Your task to perform on an android device: move a message to another label in the gmail app Image 0: 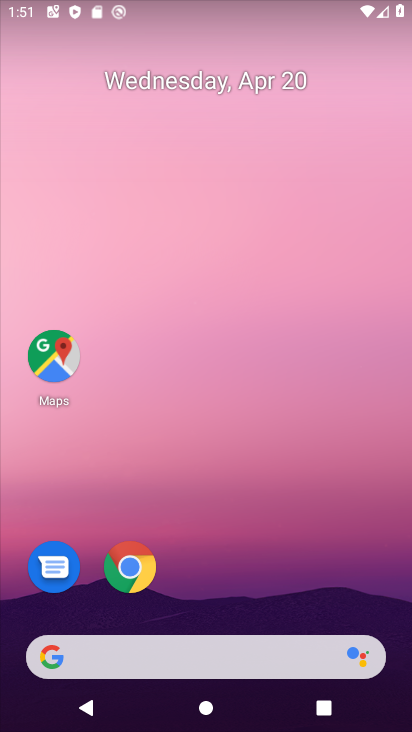
Step 0: drag from (192, 652) to (331, 70)
Your task to perform on an android device: move a message to another label in the gmail app Image 1: 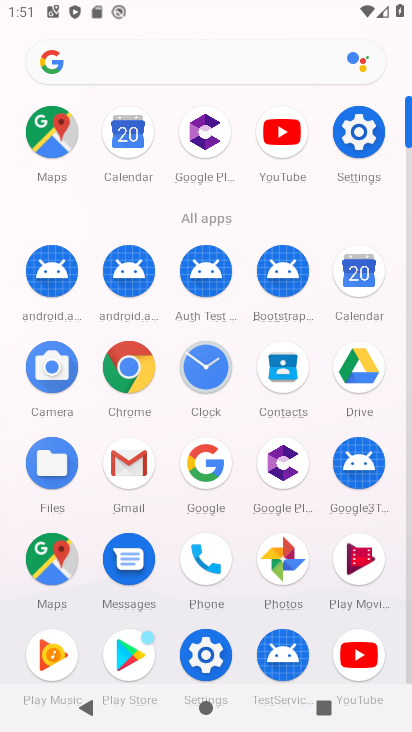
Step 1: click (120, 454)
Your task to perform on an android device: move a message to another label in the gmail app Image 2: 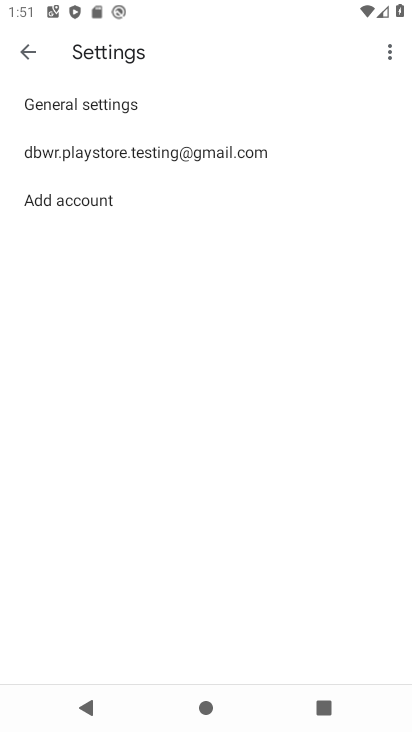
Step 2: press back button
Your task to perform on an android device: move a message to another label in the gmail app Image 3: 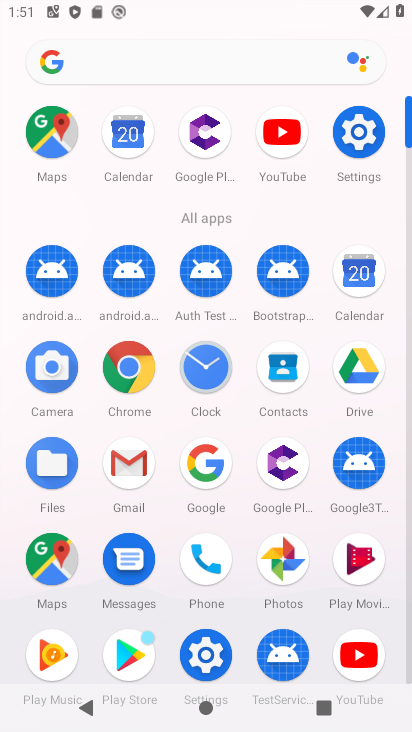
Step 3: click (112, 453)
Your task to perform on an android device: move a message to another label in the gmail app Image 4: 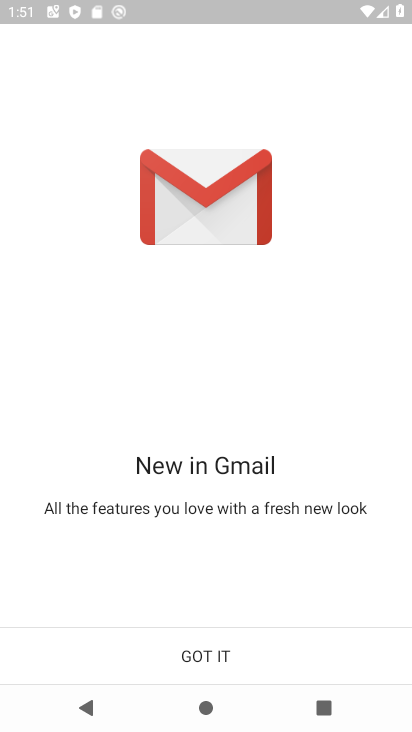
Step 4: click (186, 635)
Your task to perform on an android device: move a message to another label in the gmail app Image 5: 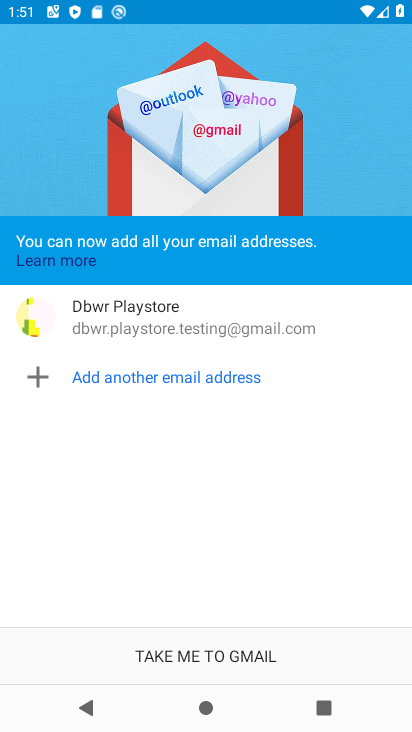
Step 5: click (159, 678)
Your task to perform on an android device: move a message to another label in the gmail app Image 6: 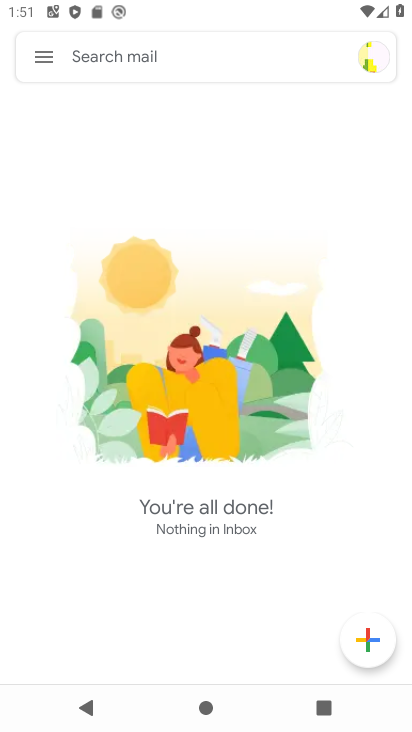
Step 6: click (48, 52)
Your task to perform on an android device: move a message to another label in the gmail app Image 7: 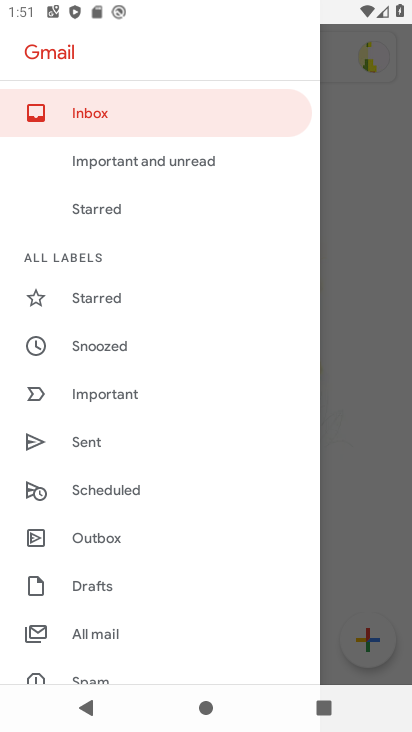
Step 7: click (112, 629)
Your task to perform on an android device: move a message to another label in the gmail app Image 8: 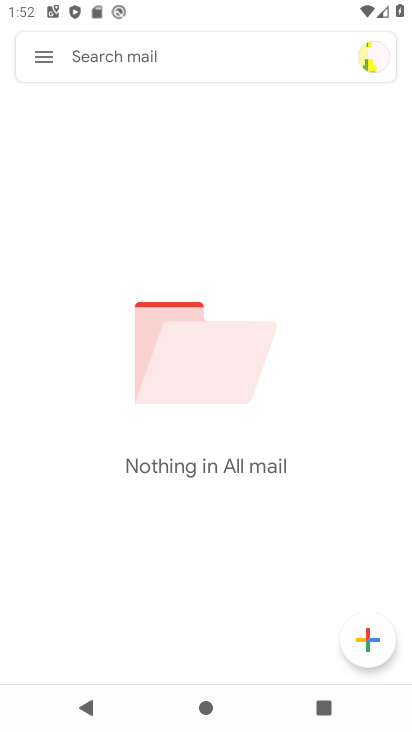
Step 8: task complete